Your task to perform on an android device: open app "Pandora - Music & Podcasts" (install if not already installed) Image 0: 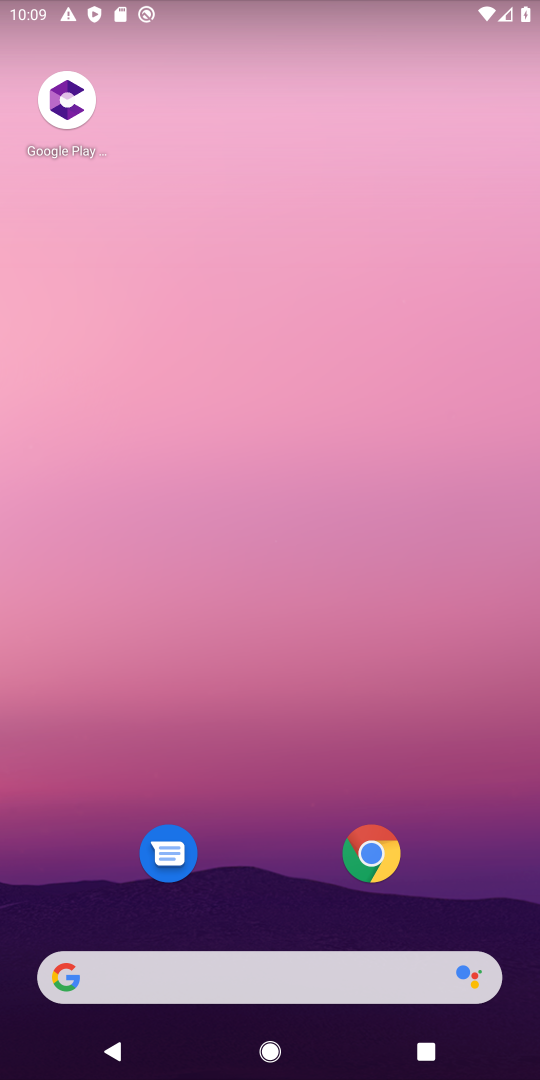
Step 0: drag from (240, 773) to (305, 2)
Your task to perform on an android device: open app "Pandora - Music & Podcasts" (install if not already installed) Image 1: 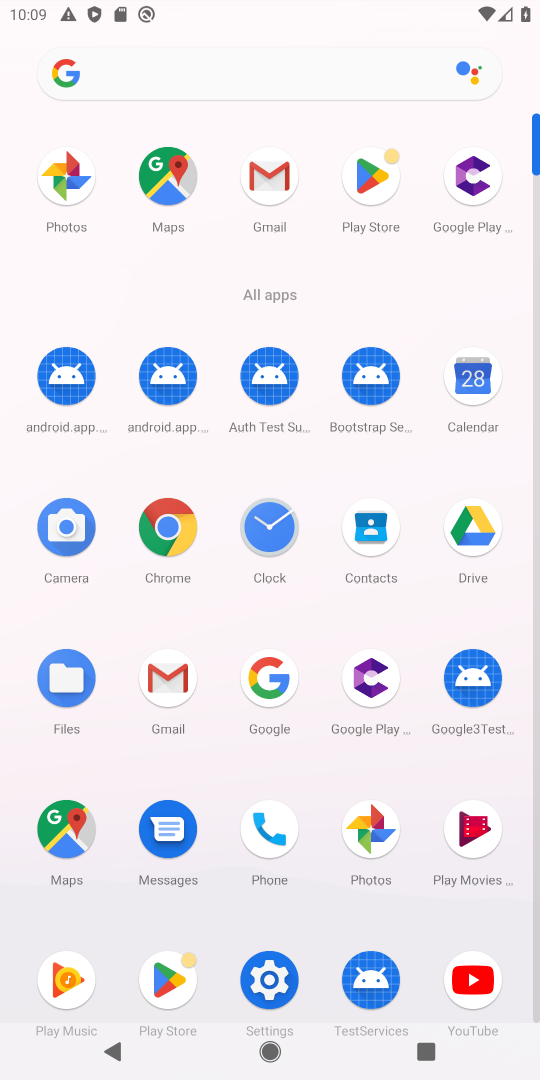
Step 1: click (386, 190)
Your task to perform on an android device: open app "Pandora - Music & Podcasts" (install if not already installed) Image 2: 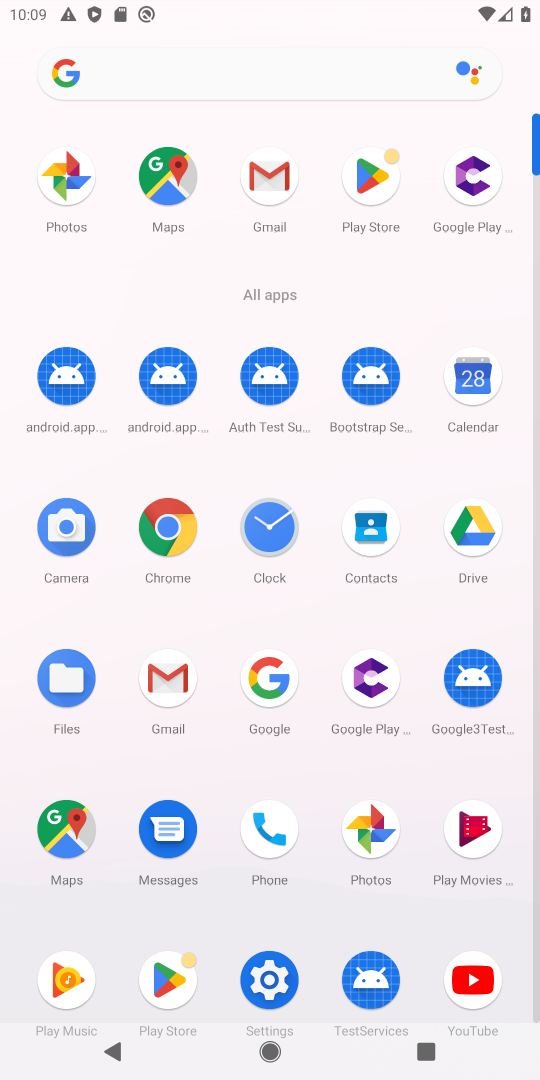
Step 2: click (386, 190)
Your task to perform on an android device: open app "Pandora - Music & Podcasts" (install if not already installed) Image 3: 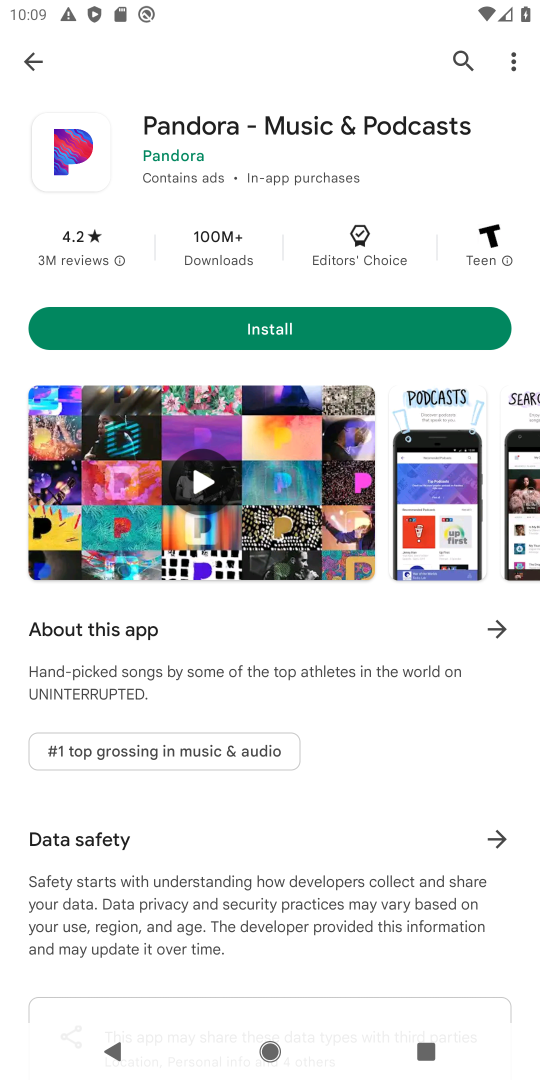
Step 3: click (350, 335)
Your task to perform on an android device: open app "Pandora - Music & Podcasts" (install if not already installed) Image 4: 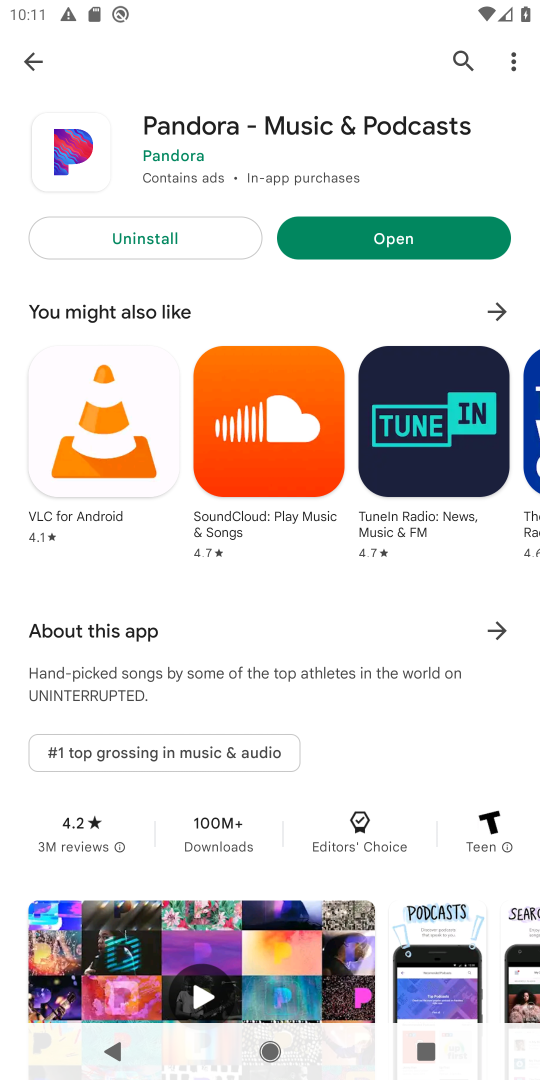
Step 4: click (395, 231)
Your task to perform on an android device: open app "Pandora - Music & Podcasts" (install if not already installed) Image 5: 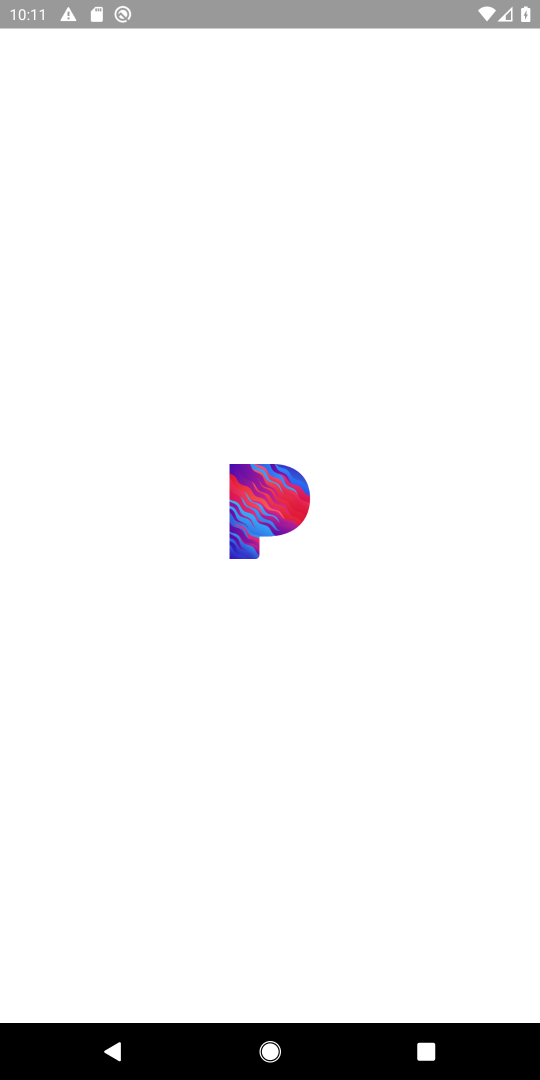
Step 5: task complete